Your task to perform on an android device: Open Chrome and go to the settings page Image 0: 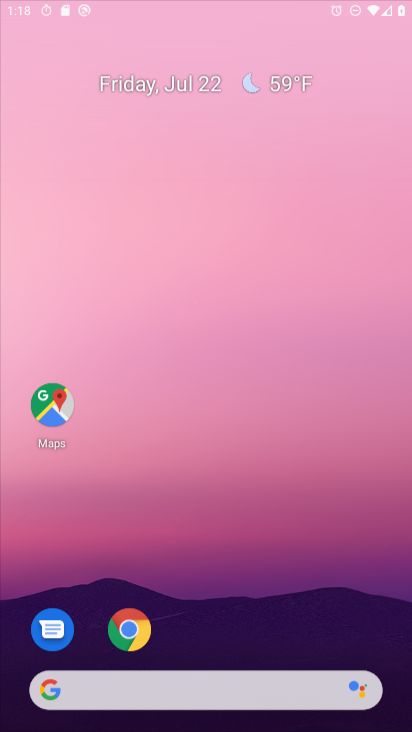
Step 0: press home button
Your task to perform on an android device: Open Chrome and go to the settings page Image 1: 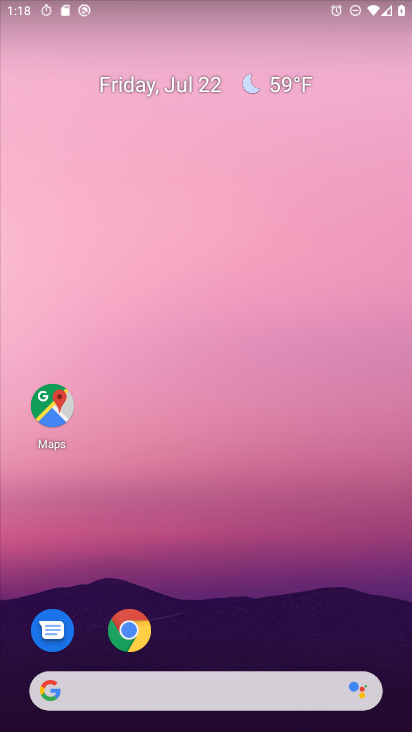
Step 1: drag from (223, 651) to (277, 151)
Your task to perform on an android device: Open Chrome and go to the settings page Image 2: 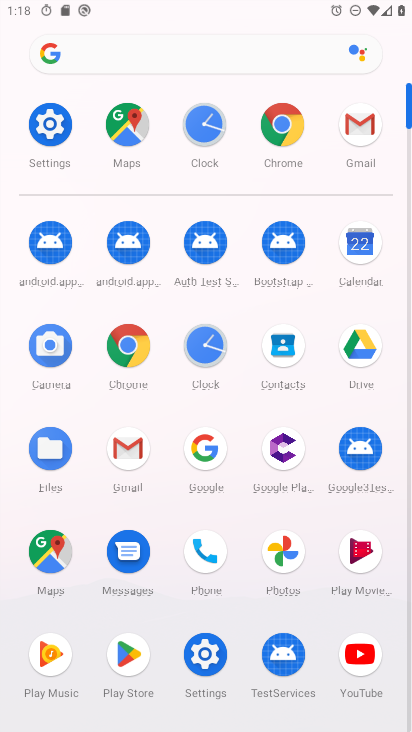
Step 2: click (289, 118)
Your task to perform on an android device: Open Chrome and go to the settings page Image 3: 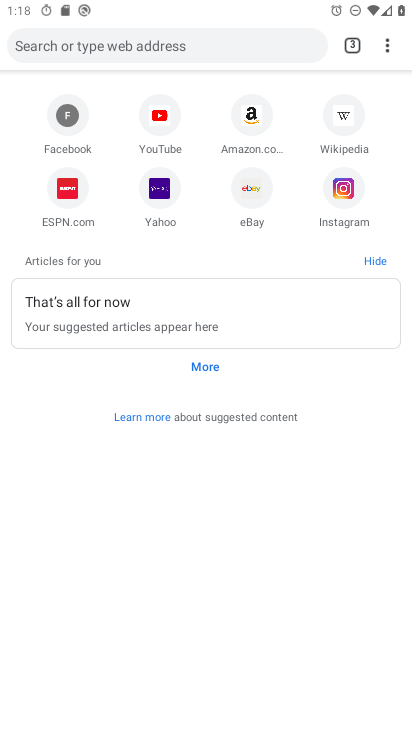
Step 3: task complete